Your task to perform on an android device: Open the calendar and show me this week's events? Image 0: 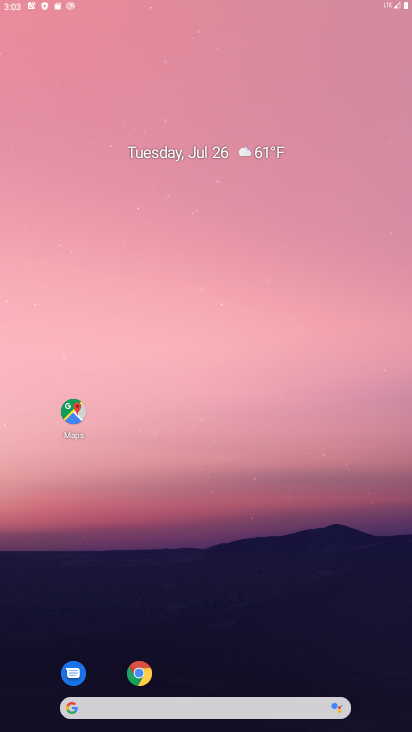
Step 0: drag from (237, 662) to (257, 206)
Your task to perform on an android device: Open the calendar and show me this week's events? Image 1: 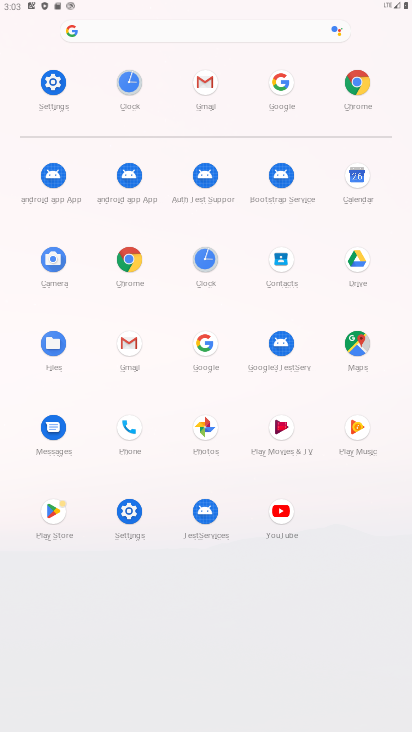
Step 1: click (325, 174)
Your task to perform on an android device: Open the calendar and show me this week's events? Image 2: 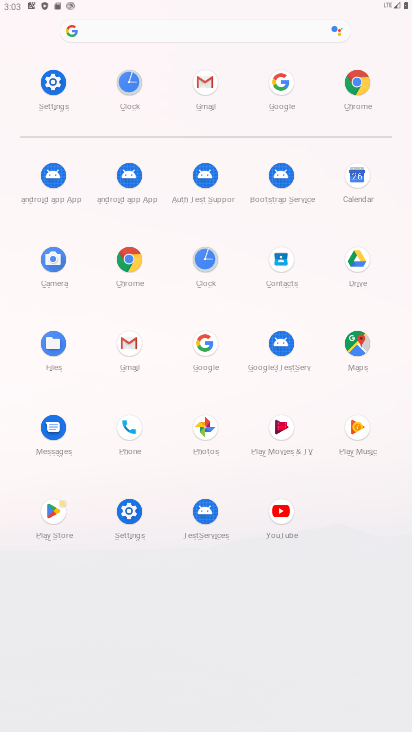
Step 2: click (363, 179)
Your task to perform on an android device: Open the calendar and show me this week's events? Image 3: 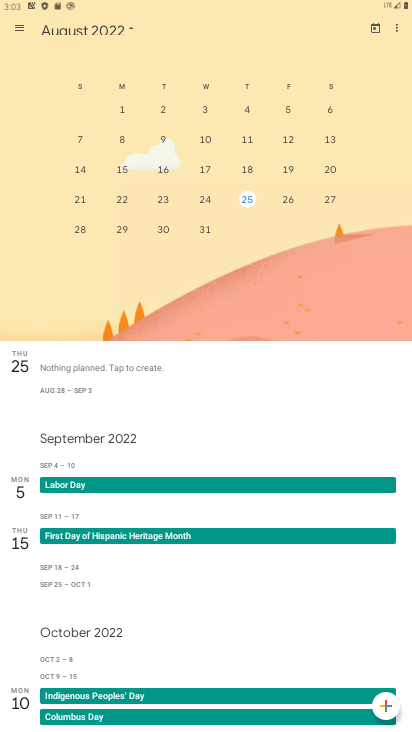
Step 3: click (377, 30)
Your task to perform on an android device: Open the calendar and show me this week's events? Image 4: 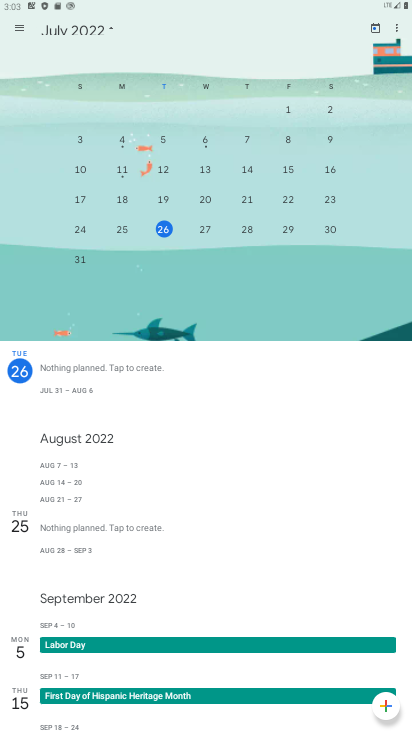
Step 4: click (328, 228)
Your task to perform on an android device: Open the calendar and show me this week's events? Image 5: 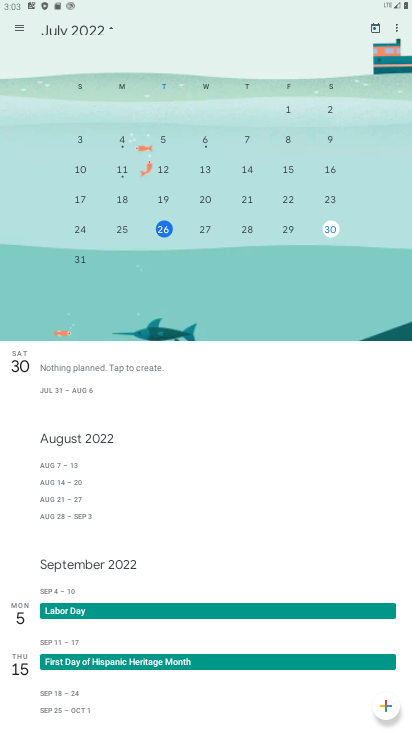
Step 5: task complete